Your task to perform on an android device: turn on notifications settings in the gmail app Image 0: 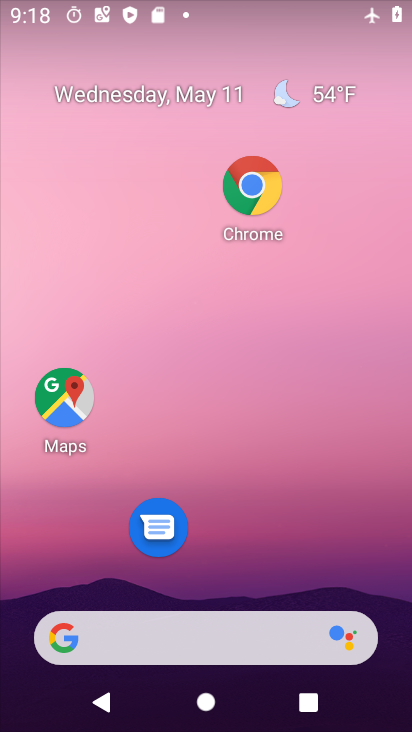
Step 0: drag from (234, 545) to (218, 83)
Your task to perform on an android device: turn on notifications settings in the gmail app Image 1: 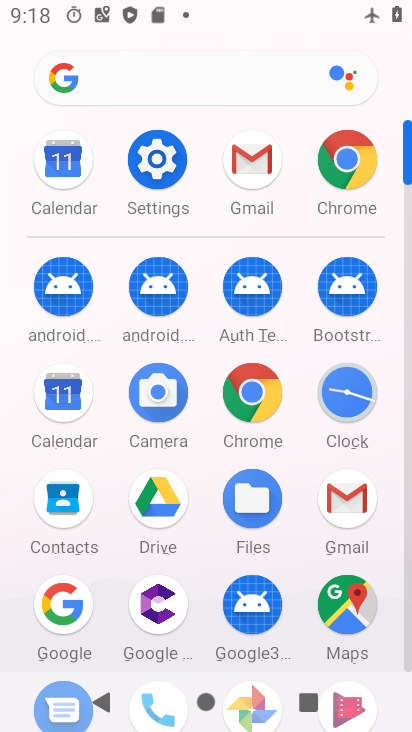
Step 1: click (252, 164)
Your task to perform on an android device: turn on notifications settings in the gmail app Image 2: 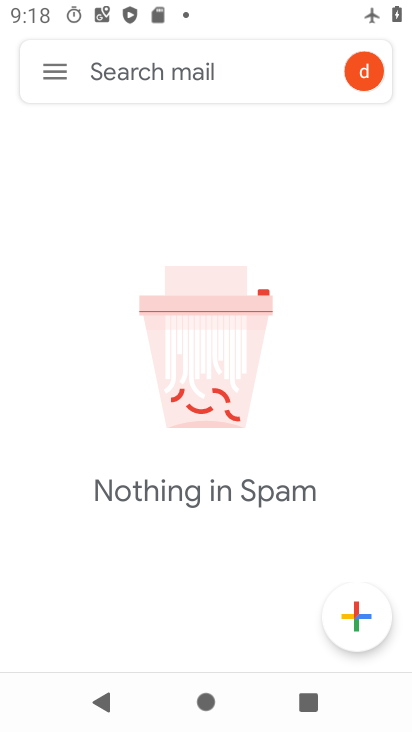
Step 2: click (52, 53)
Your task to perform on an android device: turn on notifications settings in the gmail app Image 3: 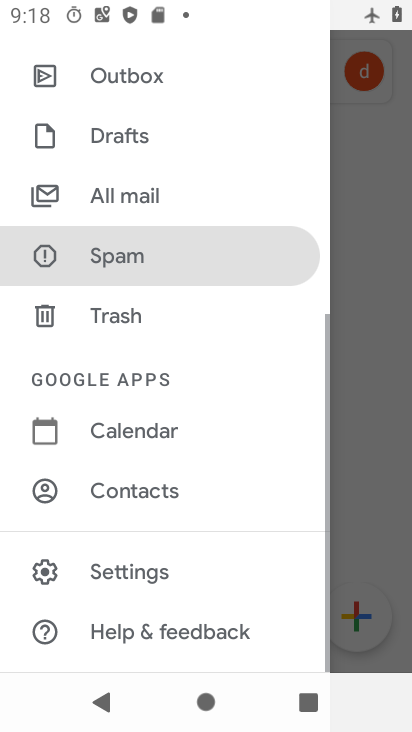
Step 3: click (138, 578)
Your task to perform on an android device: turn on notifications settings in the gmail app Image 4: 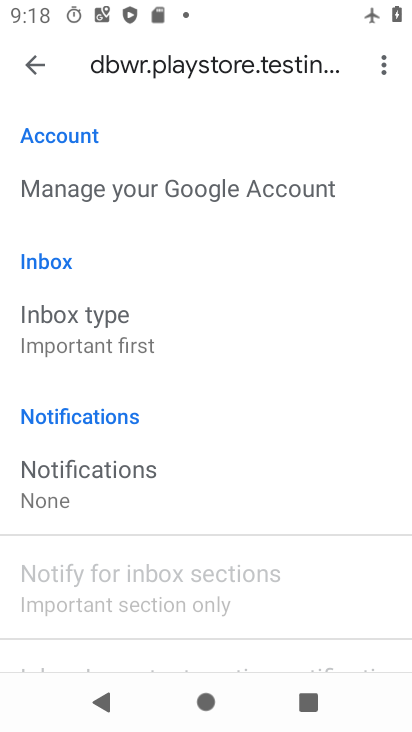
Step 4: click (112, 484)
Your task to perform on an android device: turn on notifications settings in the gmail app Image 5: 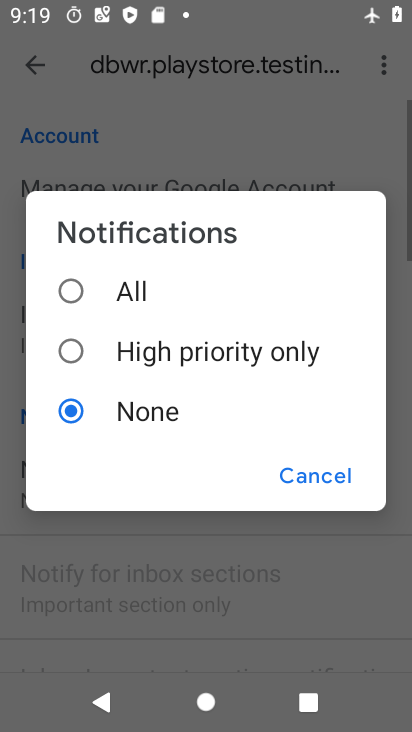
Step 5: click (71, 302)
Your task to perform on an android device: turn on notifications settings in the gmail app Image 6: 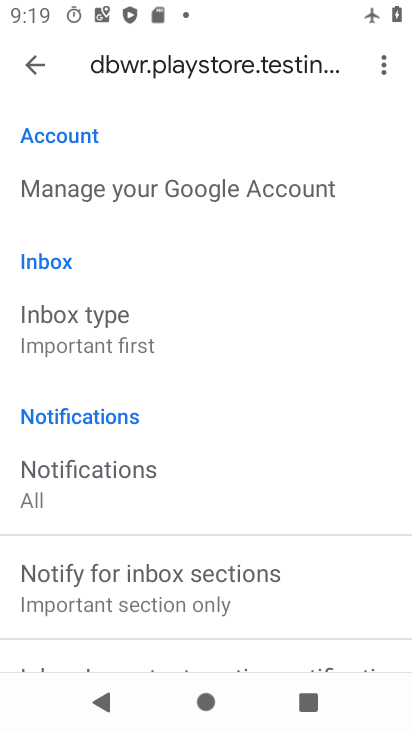
Step 6: task complete